Your task to perform on an android device: open app "Booking.com: Hotels and more" (install if not already installed) Image 0: 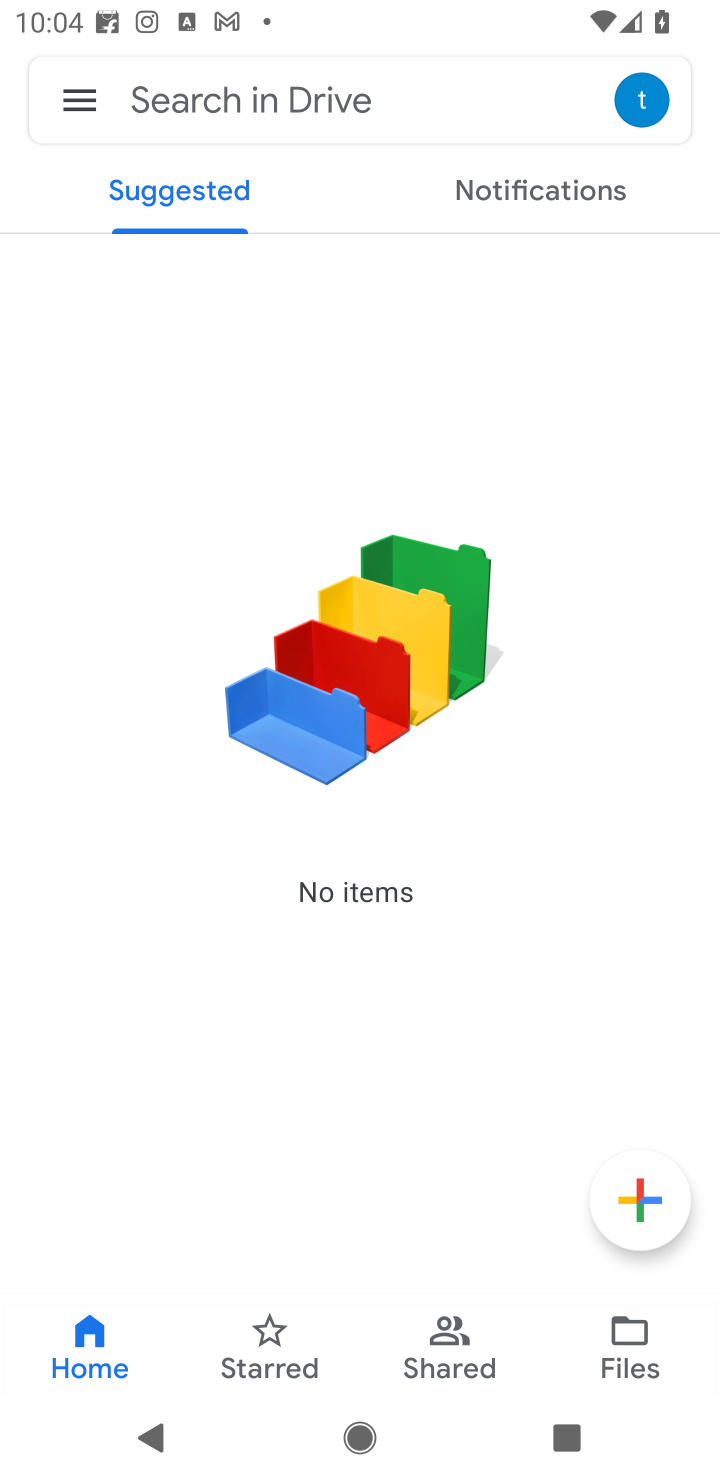
Step 0: press home button
Your task to perform on an android device: open app "Booking.com: Hotels and more" (install if not already installed) Image 1: 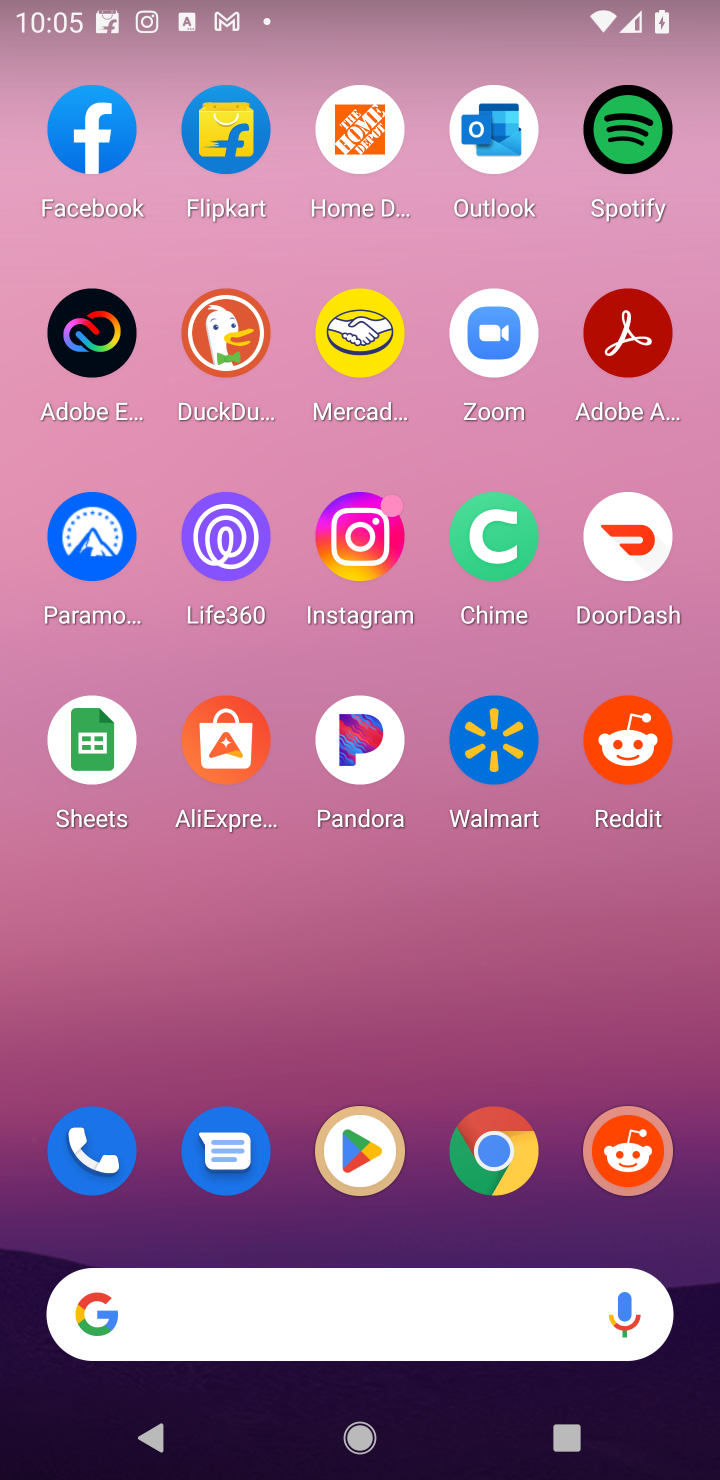
Step 1: press home button
Your task to perform on an android device: open app "Booking.com: Hotels and more" (install if not already installed) Image 2: 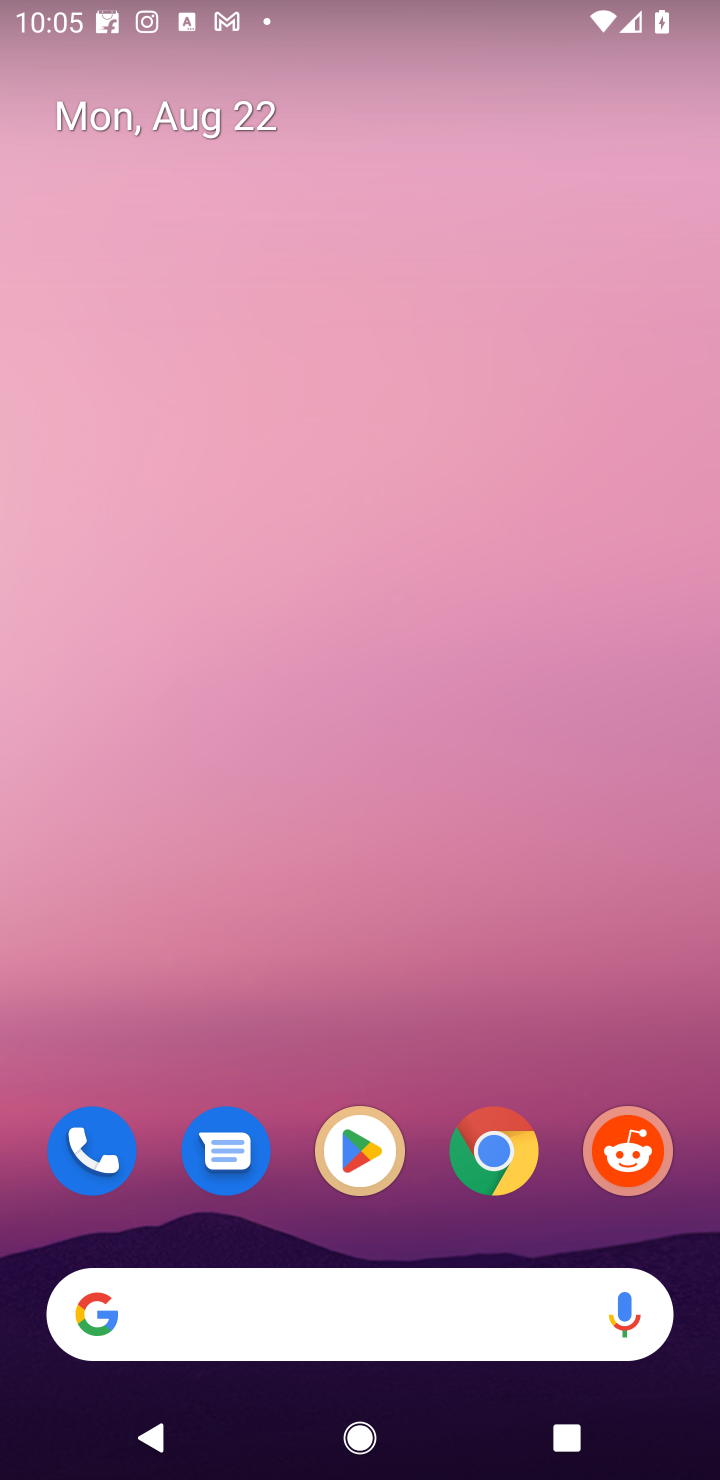
Step 2: click (358, 1145)
Your task to perform on an android device: open app "Booking.com: Hotels and more" (install if not already installed) Image 3: 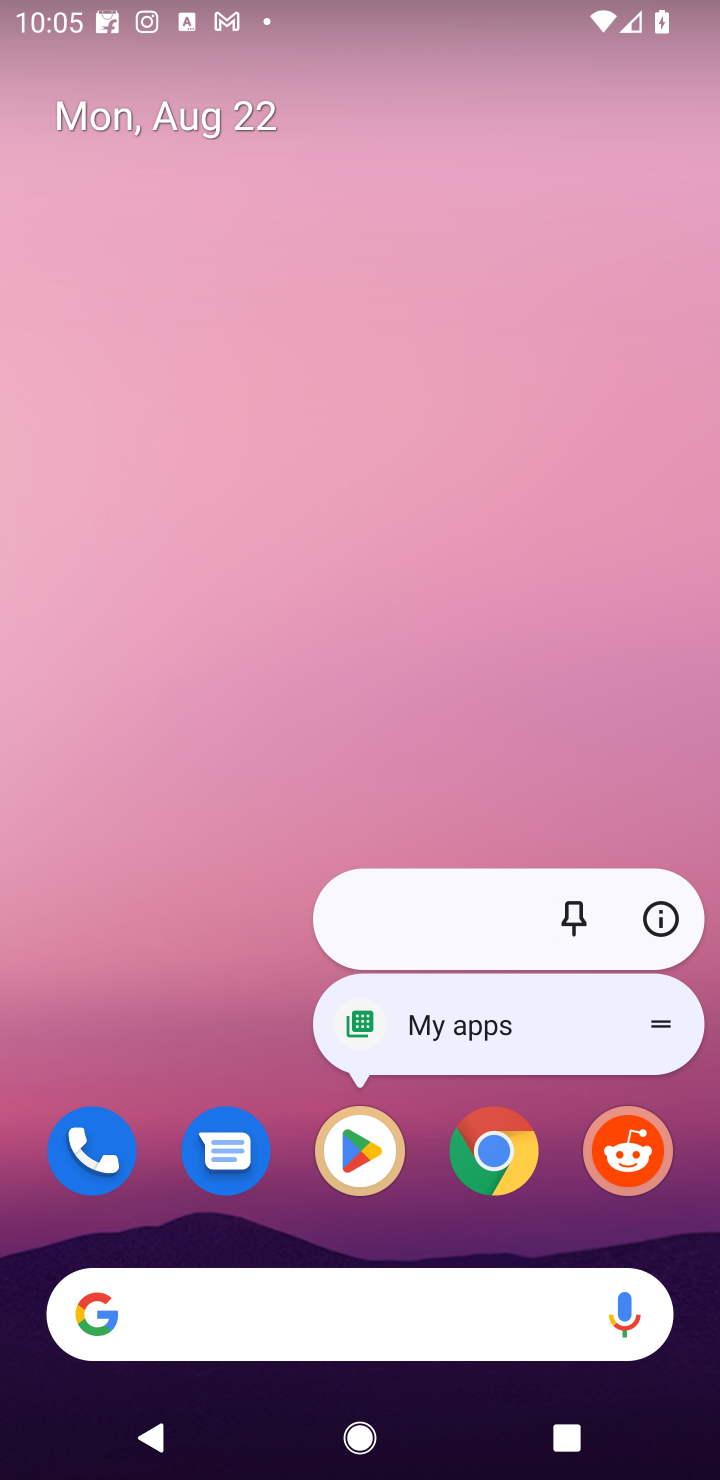
Step 3: click (347, 1145)
Your task to perform on an android device: open app "Booking.com: Hotels and more" (install if not already installed) Image 4: 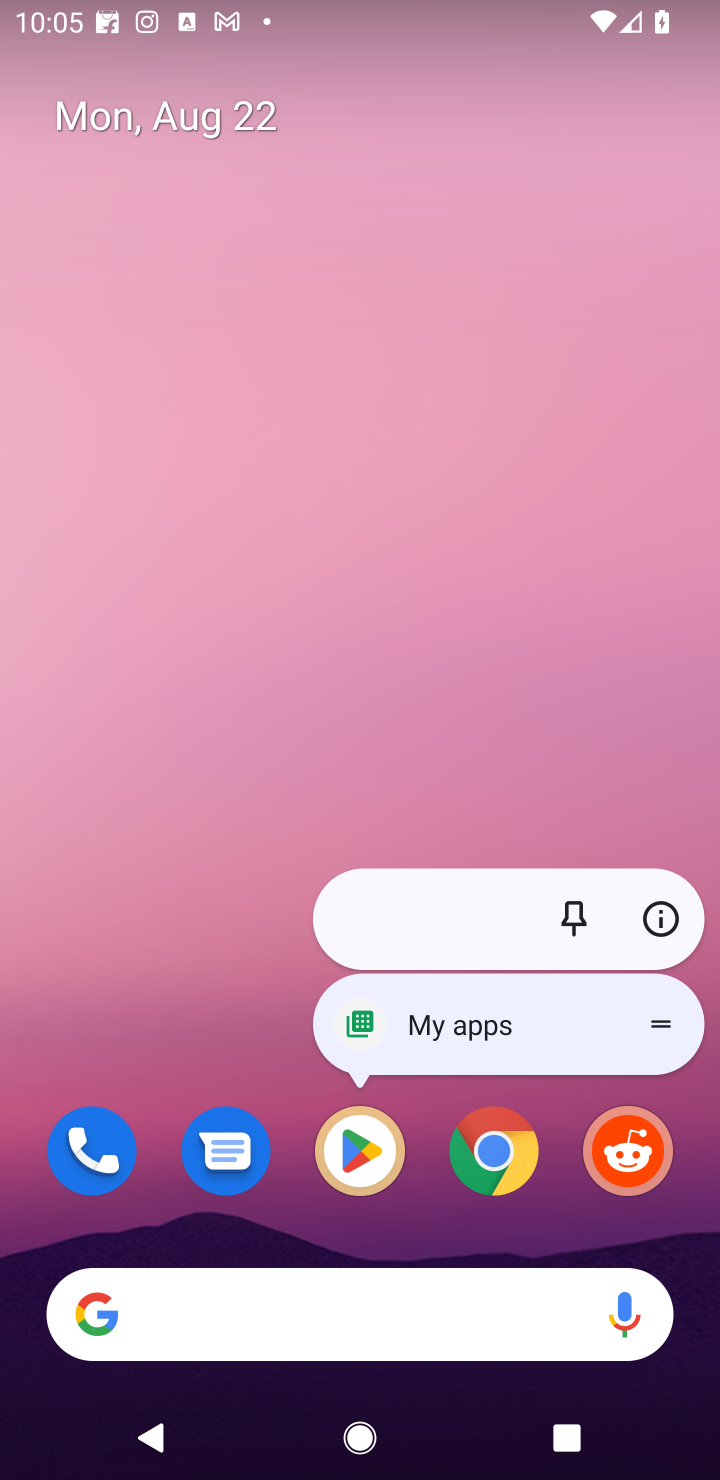
Step 4: click (345, 1159)
Your task to perform on an android device: open app "Booking.com: Hotels and more" (install if not already installed) Image 5: 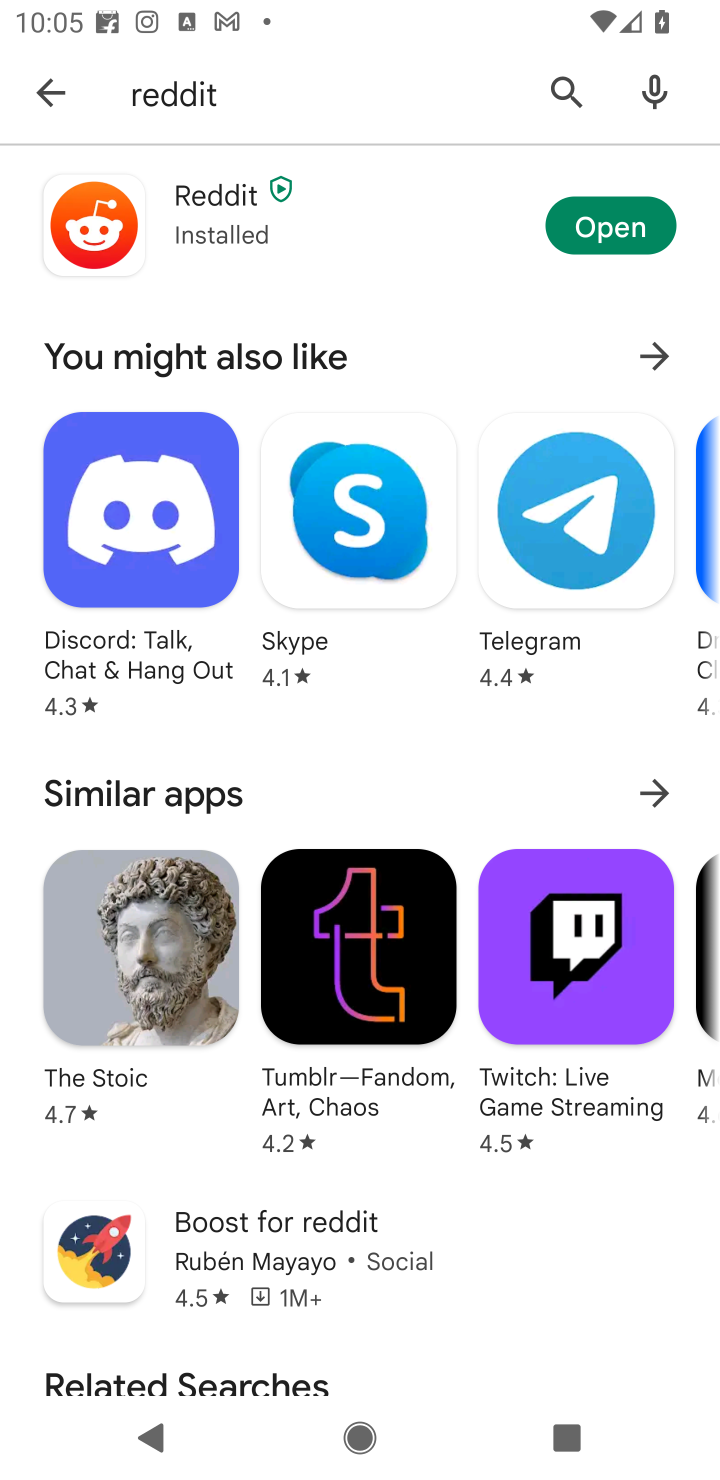
Step 5: click (564, 91)
Your task to perform on an android device: open app "Booking.com: Hotels and more" (install if not already installed) Image 6: 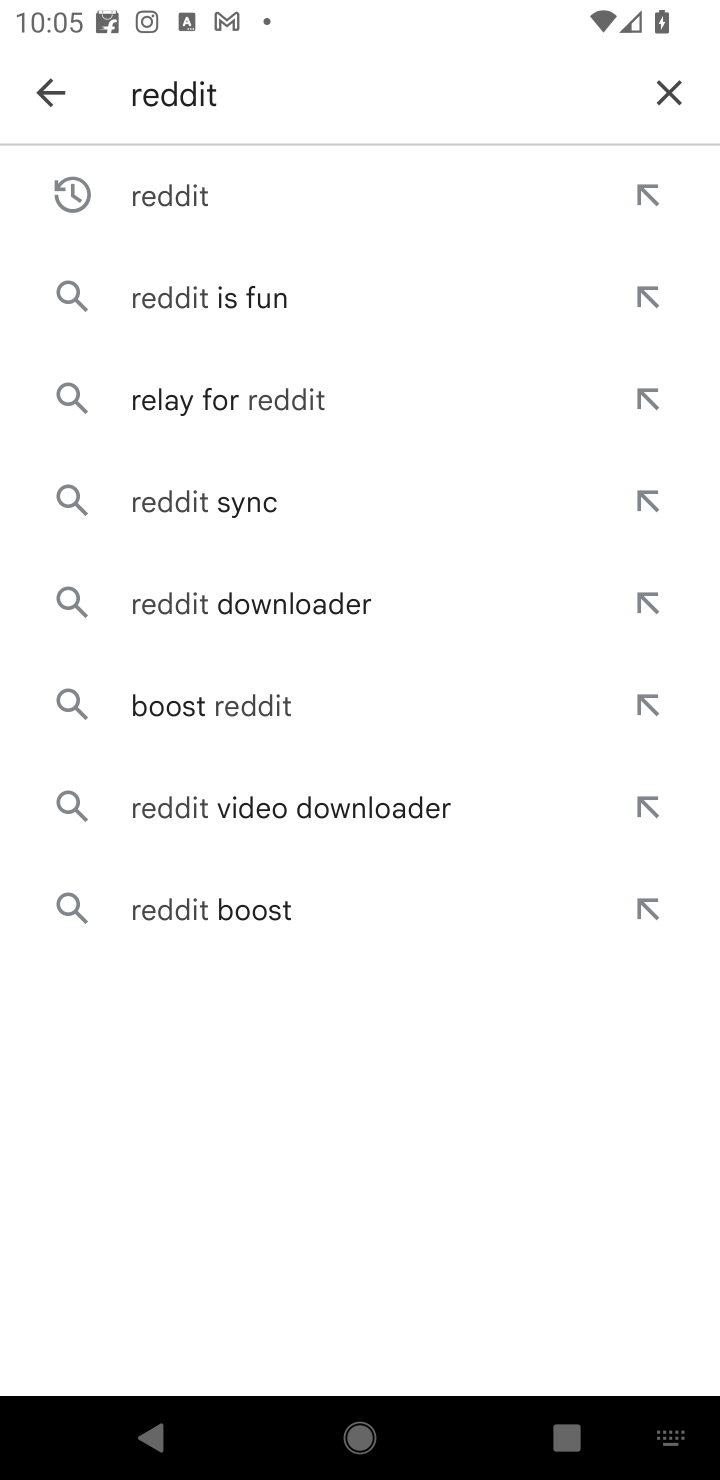
Step 6: click (662, 69)
Your task to perform on an android device: open app "Booking.com: Hotels and more" (install if not already installed) Image 7: 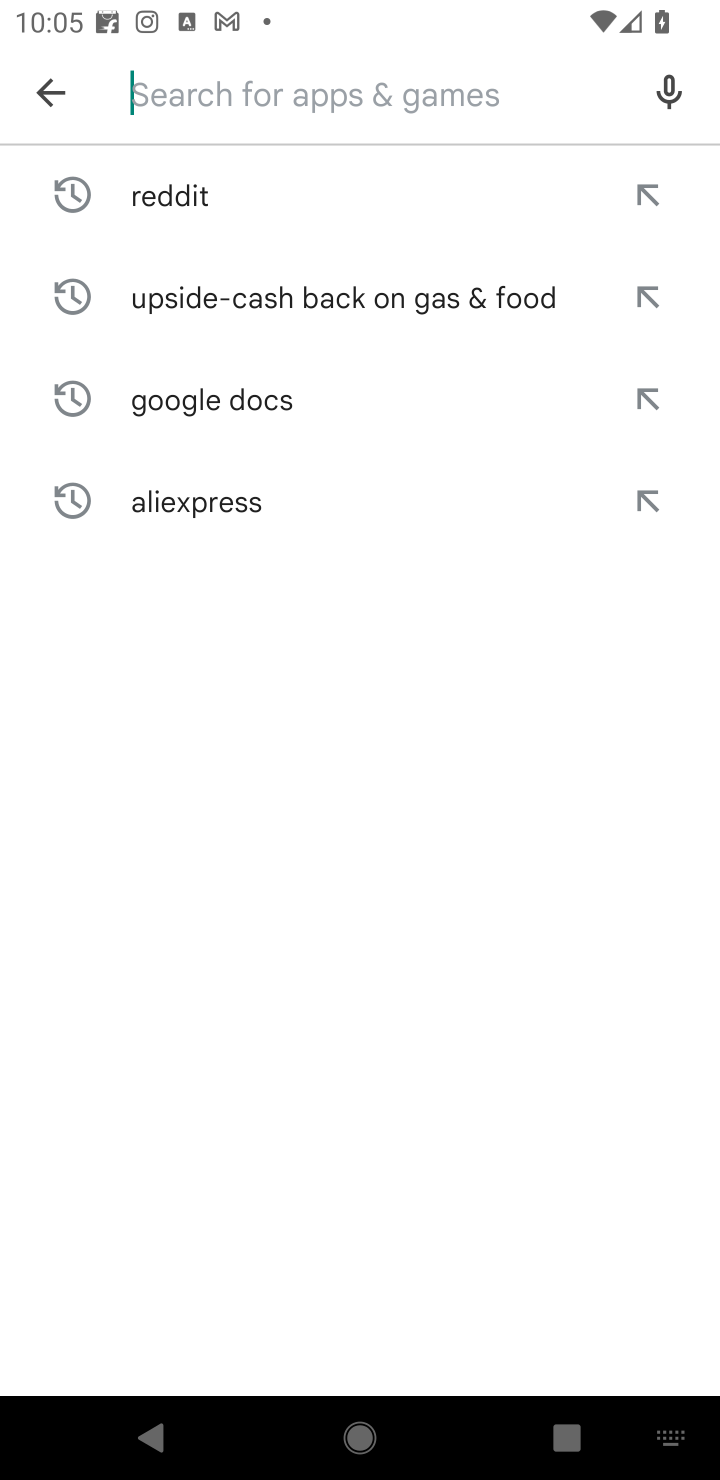
Step 7: type "Booking.com: Hotels and more"
Your task to perform on an android device: open app "Booking.com: Hotels and more" (install if not already installed) Image 8: 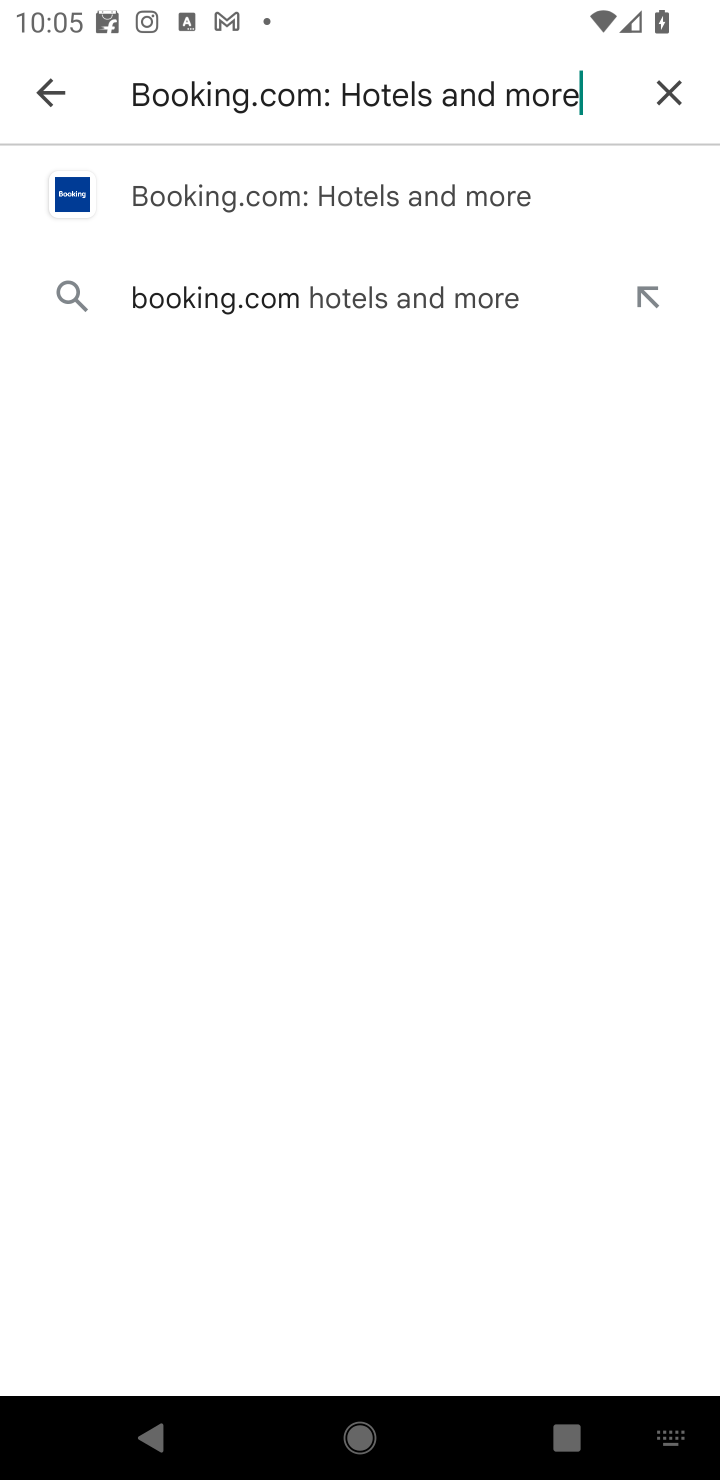
Step 8: click (204, 199)
Your task to perform on an android device: open app "Booking.com: Hotels and more" (install if not already installed) Image 9: 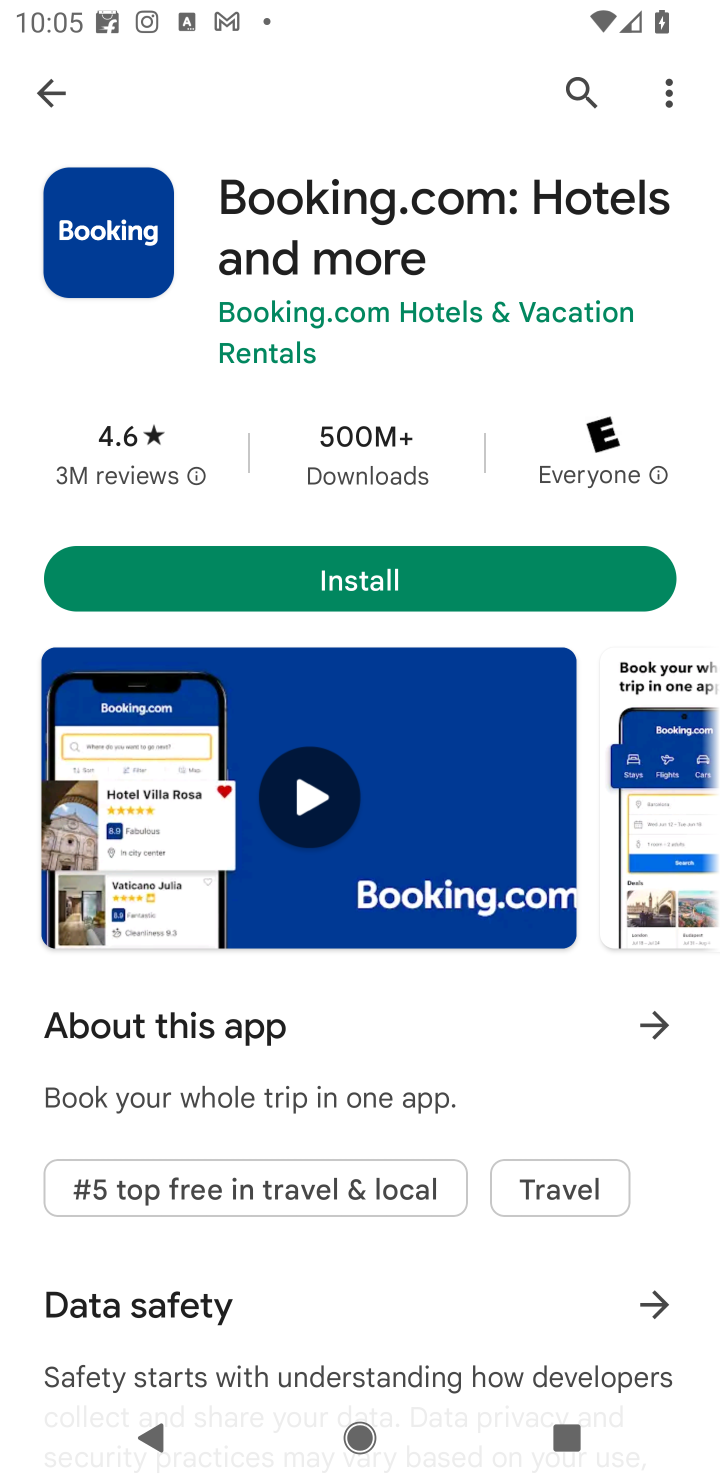
Step 9: click (429, 567)
Your task to perform on an android device: open app "Booking.com: Hotels and more" (install if not already installed) Image 10: 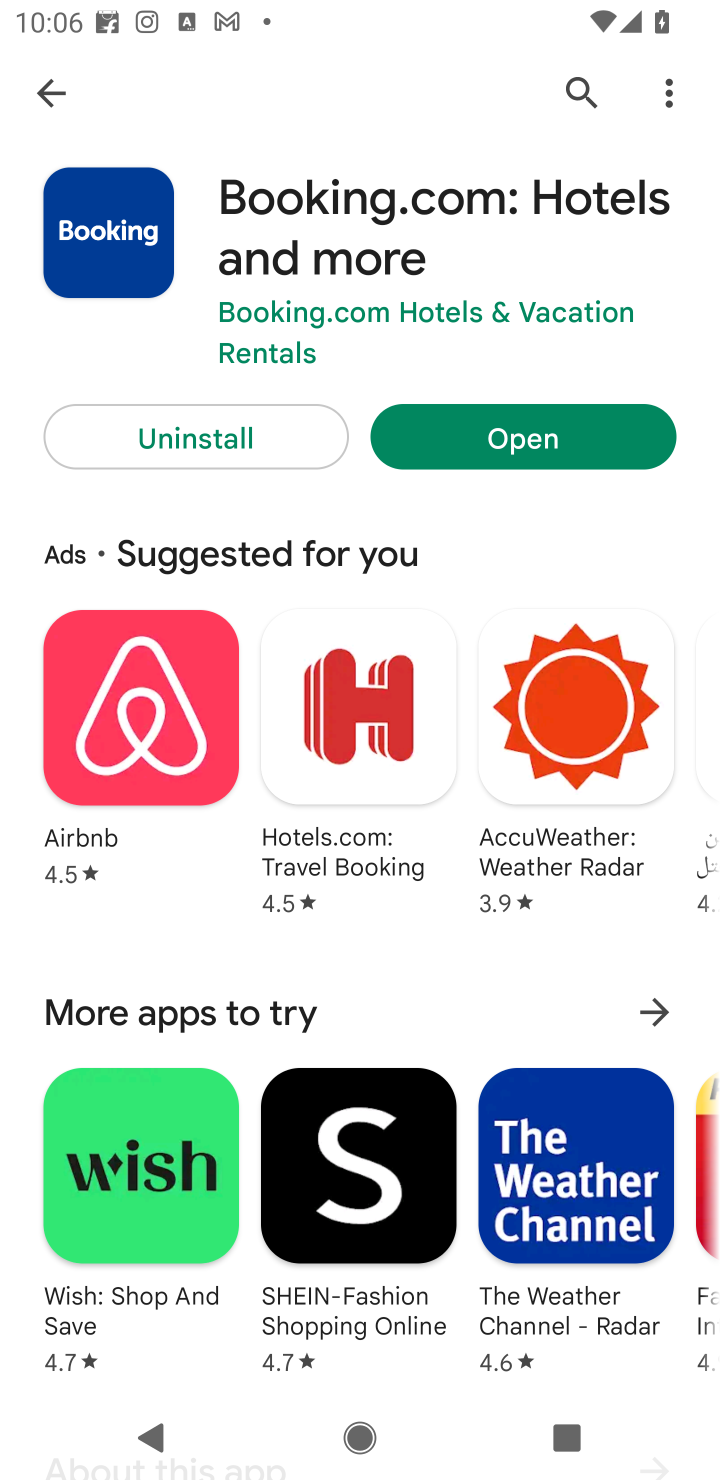
Step 10: click (594, 440)
Your task to perform on an android device: open app "Booking.com: Hotels and more" (install if not already installed) Image 11: 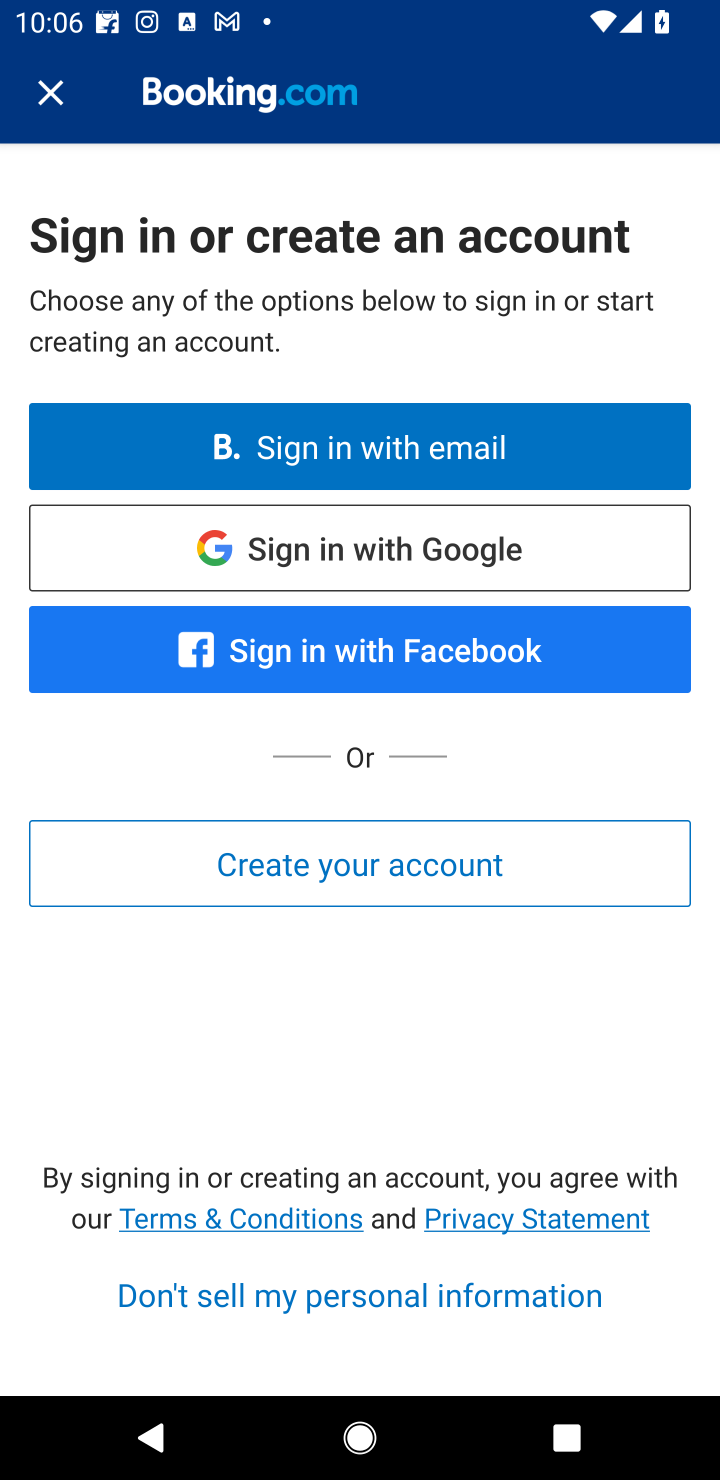
Step 11: task complete